Your task to perform on an android device: Open Google Chrome and click the shortcut for Amazon.com Image 0: 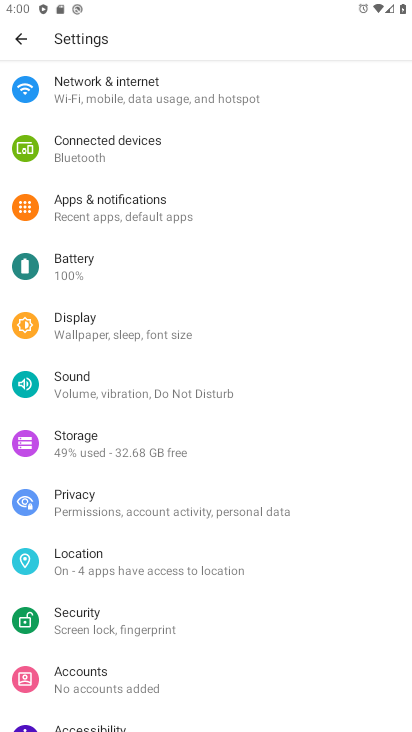
Step 0: press home button
Your task to perform on an android device: Open Google Chrome and click the shortcut for Amazon.com Image 1: 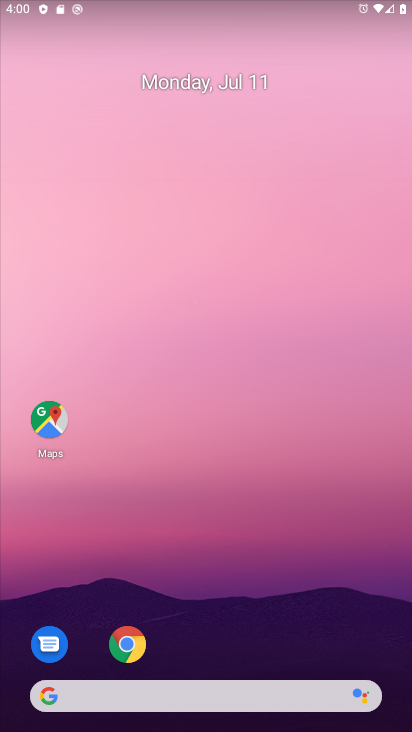
Step 1: drag from (294, 641) to (291, 169)
Your task to perform on an android device: Open Google Chrome and click the shortcut for Amazon.com Image 2: 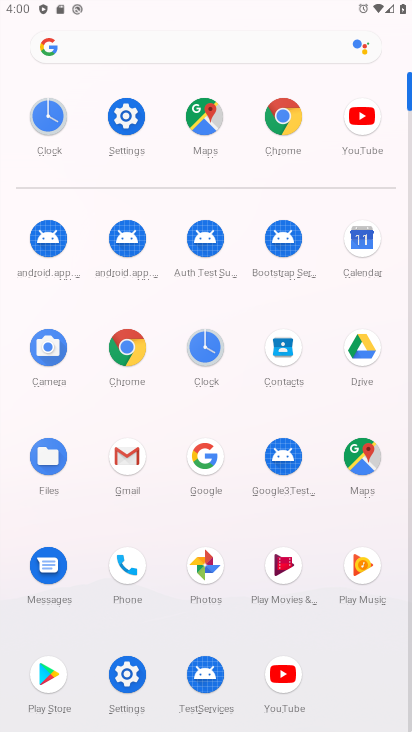
Step 2: click (278, 134)
Your task to perform on an android device: Open Google Chrome and click the shortcut for Amazon.com Image 3: 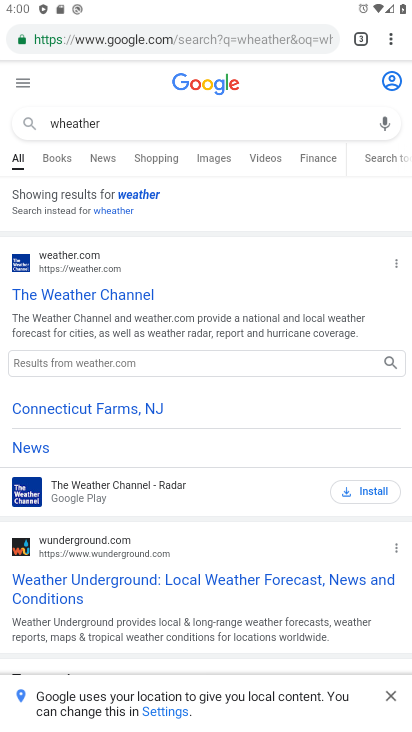
Step 3: click (356, 38)
Your task to perform on an android device: Open Google Chrome and click the shortcut for Amazon.com Image 4: 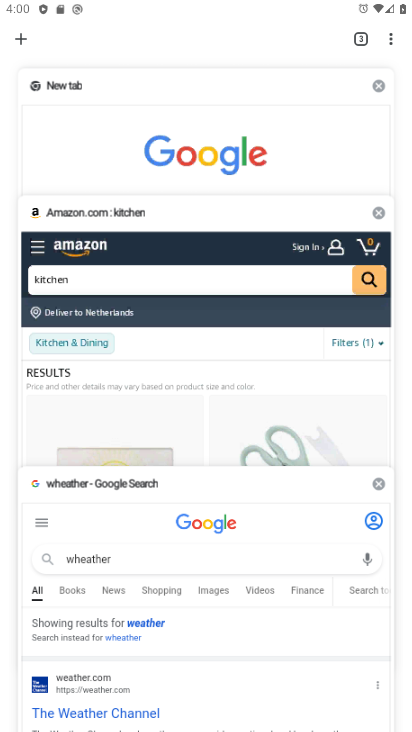
Step 4: click (223, 295)
Your task to perform on an android device: Open Google Chrome and click the shortcut for Amazon.com Image 5: 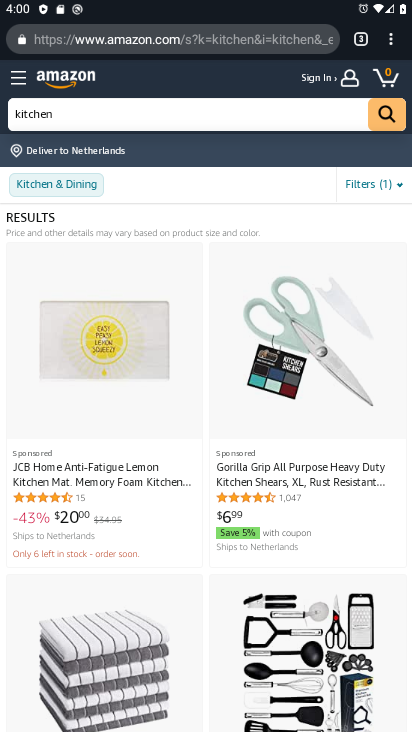
Step 5: click (390, 43)
Your task to perform on an android device: Open Google Chrome and click the shortcut for Amazon.com Image 6: 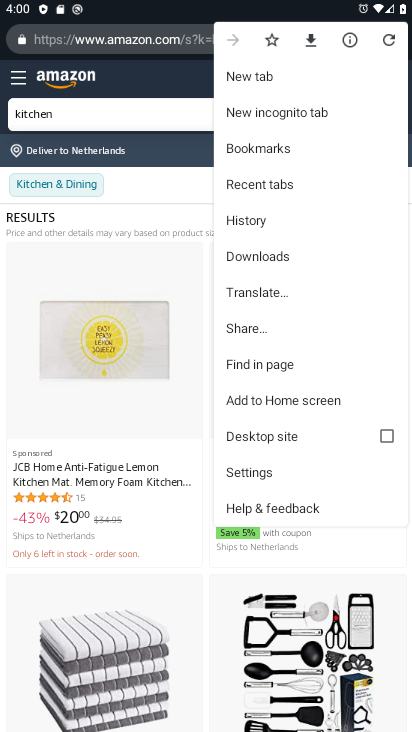
Step 6: click (153, 84)
Your task to perform on an android device: Open Google Chrome and click the shortcut for Amazon.com Image 7: 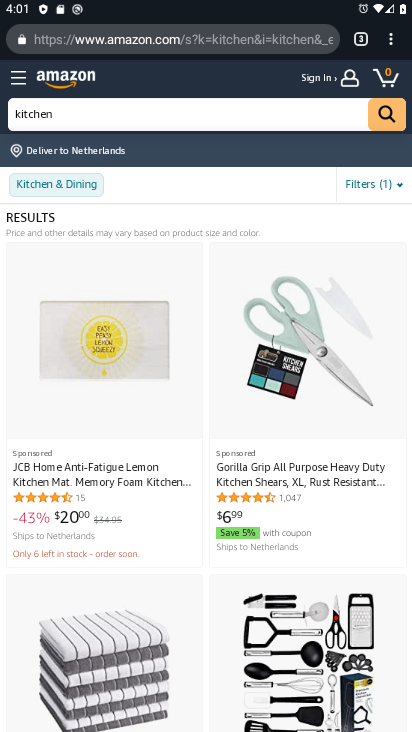
Step 7: task complete